Your task to perform on an android device: all mails in gmail Image 0: 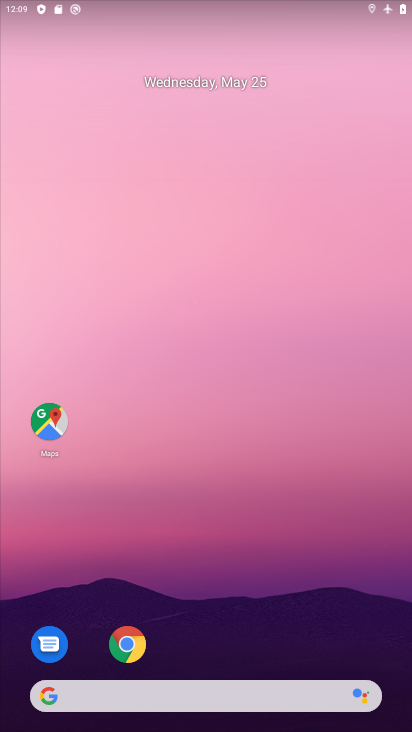
Step 0: drag from (287, 585) to (214, 92)
Your task to perform on an android device: all mails in gmail Image 1: 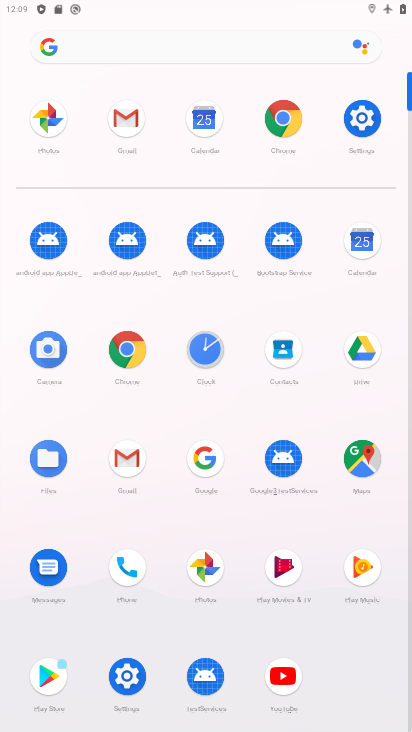
Step 1: click (118, 126)
Your task to perform on an android device: all mails in gmail Image 2: 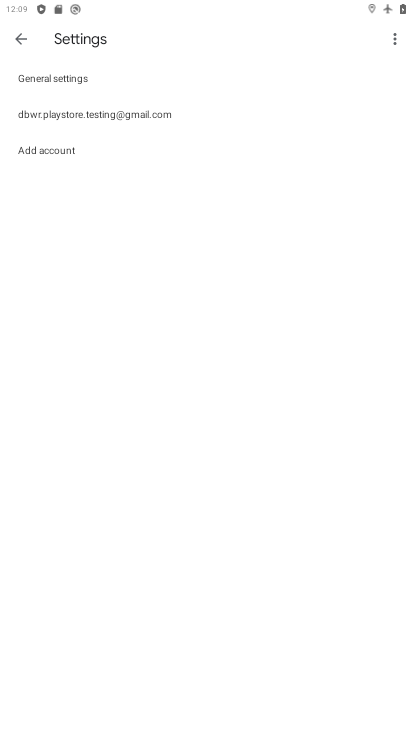
Step 2: click (17, 40)
Your task to perform on an android device: all mails in gmail Image 3: 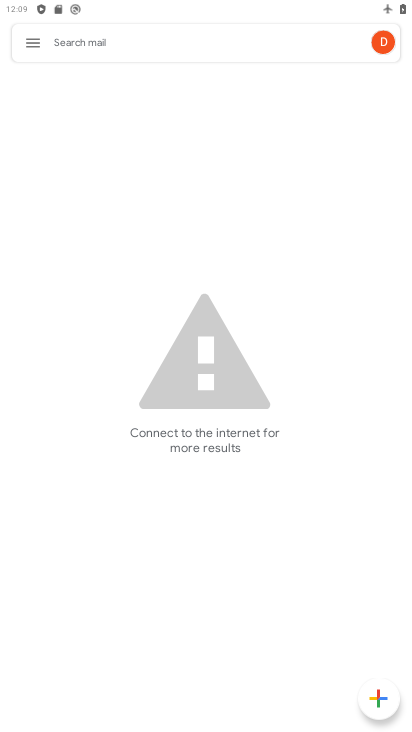
Step 3: click (19, 40)
Your task to perform on an android device: all mails in gmail Image 4: 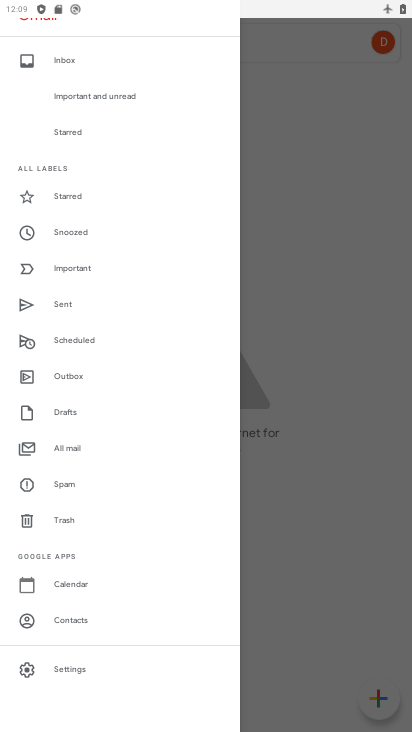
Step 4: click (77, 443)
Your task to perform on an android device: all mails in gmail Image 5: 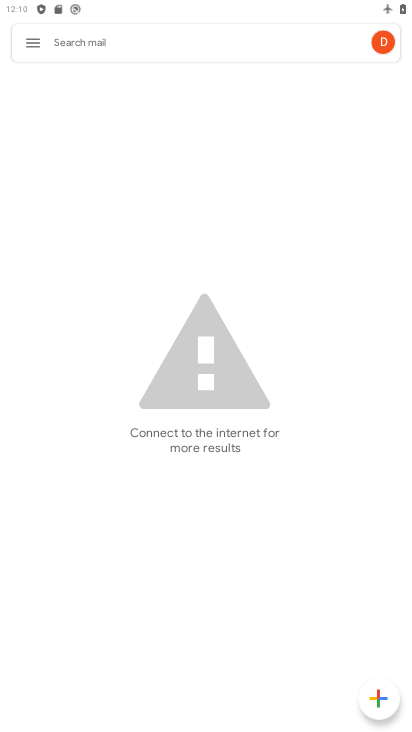
Step 5: task complete